Your task to perform on an android device: see tabs open on other devices in the chrome app Image 0: 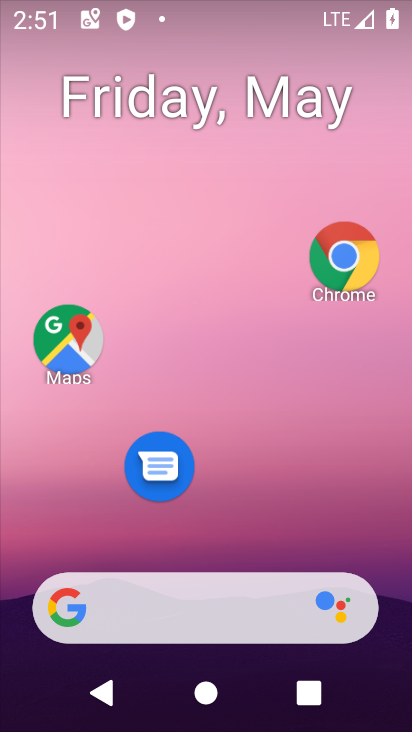
Step 0: drag from (277, 516) to (203, 17)
Your task to perform on an android device: see tabs open on other devices in the chrome app Image 1: 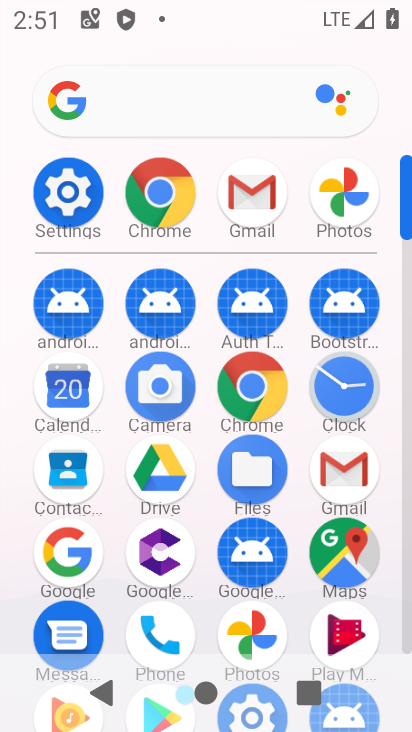
Step 1: click (158, 191)
Your task to perform on an android device: see tabs open on other devices in the chrome app Image 2: 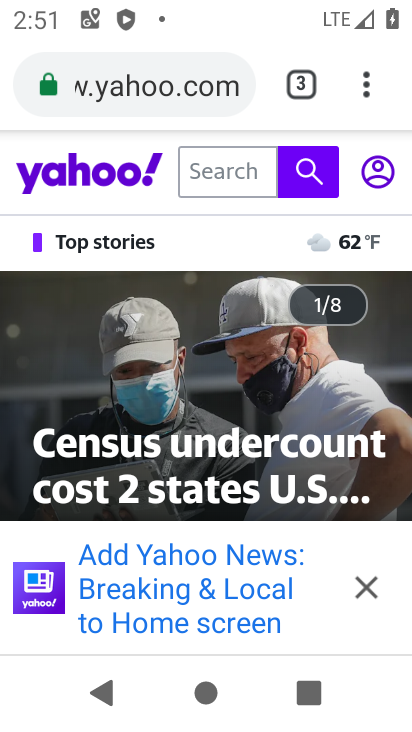
Step 2: click (168, 71)
Your task to perform on an android device: see tabs open on other devices in the chrome app Image 3: 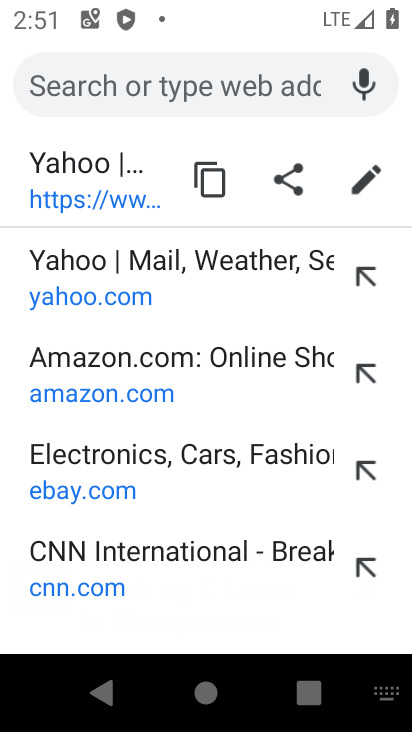
Step 3: task complete